Your task to perform on an android device: Set the phone to "Do not disturb". Image 0: 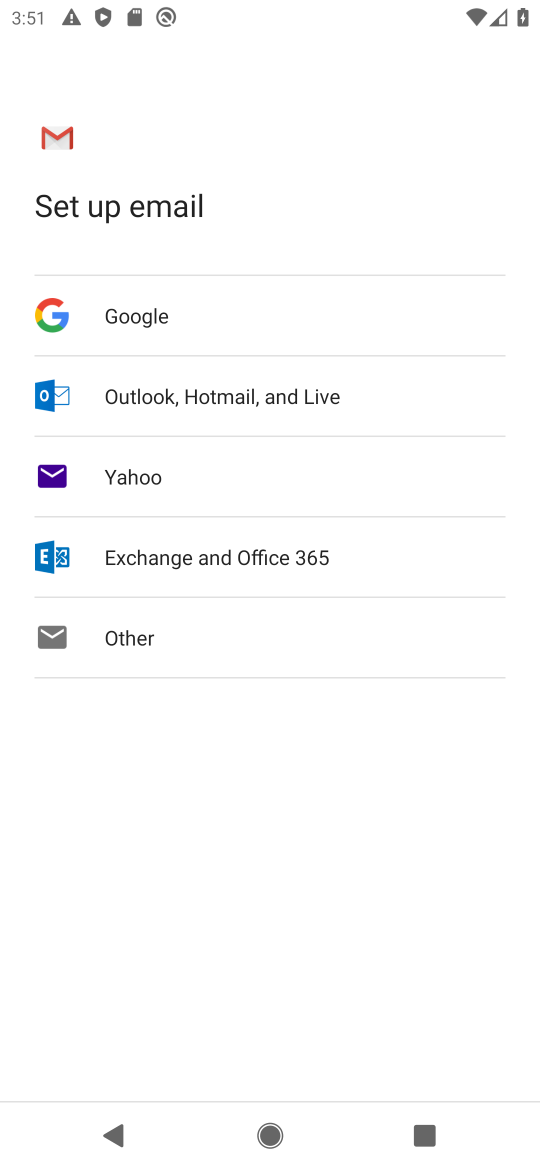
Step 0: press back button
Your task to perform on an android device: Set the phone to "Do not disturb". Image 1: 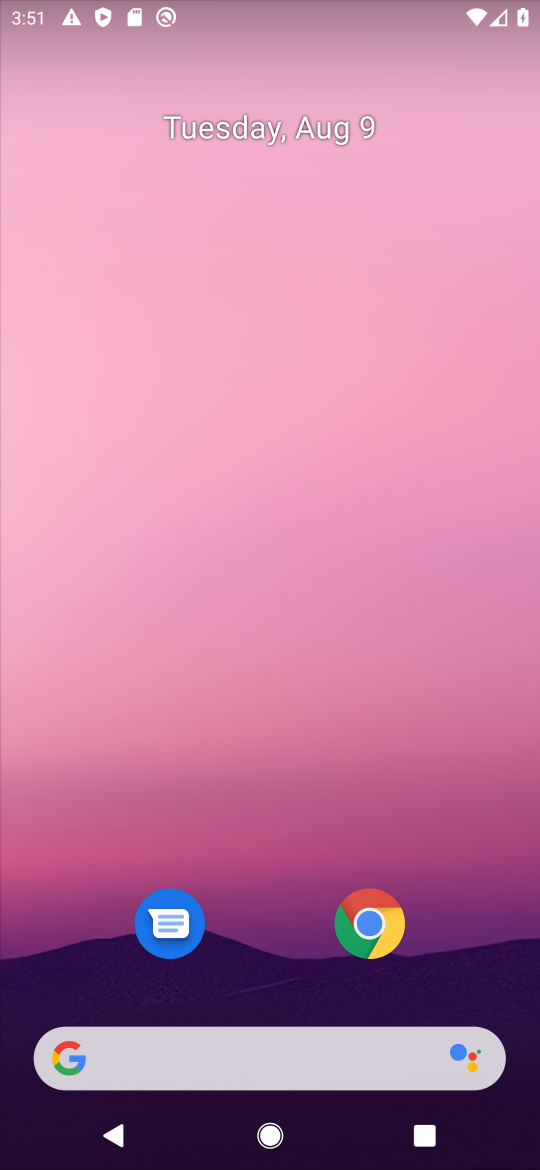
Step 1: drag from (440, 120) to (289, 791)
Your task to perform on an android device: Set the phone to "Do not disturb". Image 2: 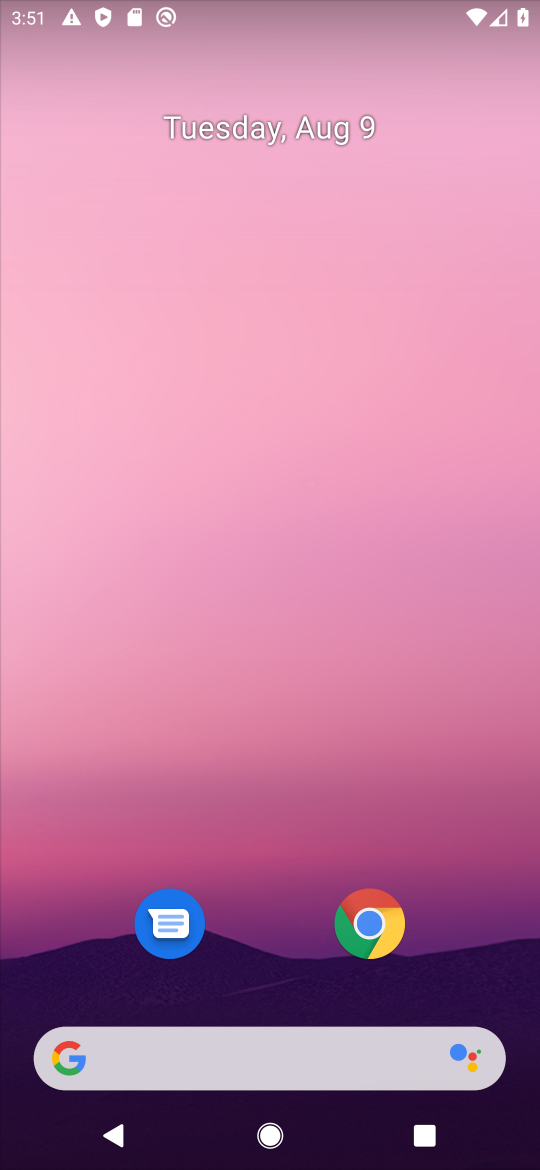
Step 2: drag from (196, 113) to (290, 766)
Your task to perform on an android device: Set the phone to "Do not disturb". Image 3: 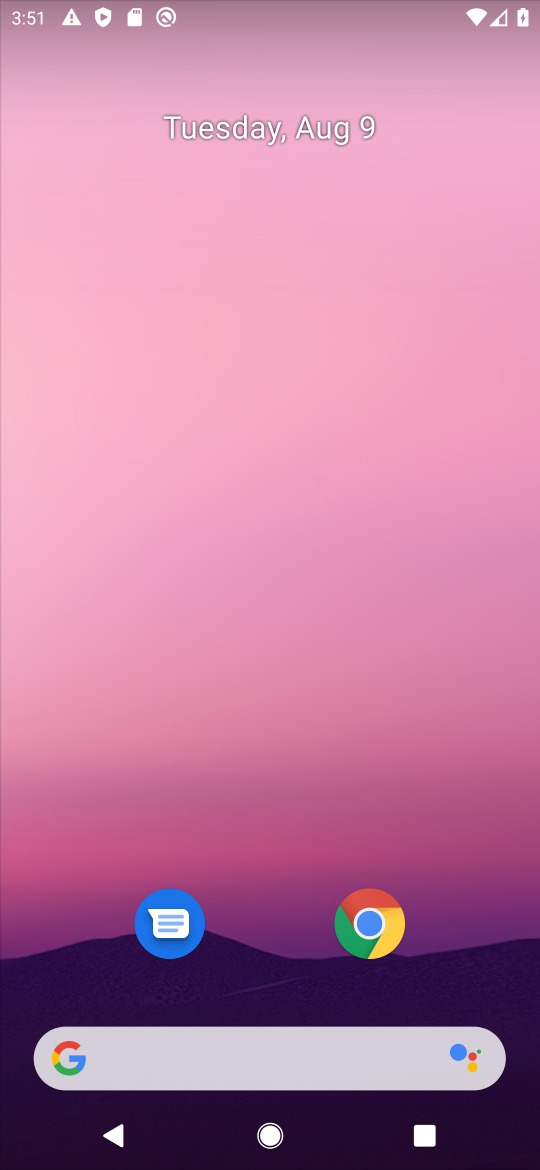
Step 3: drag from (275, 99) to (278, 784)
Your task to perform on an android device: Set the phone to "Do not disturb". Image 4: 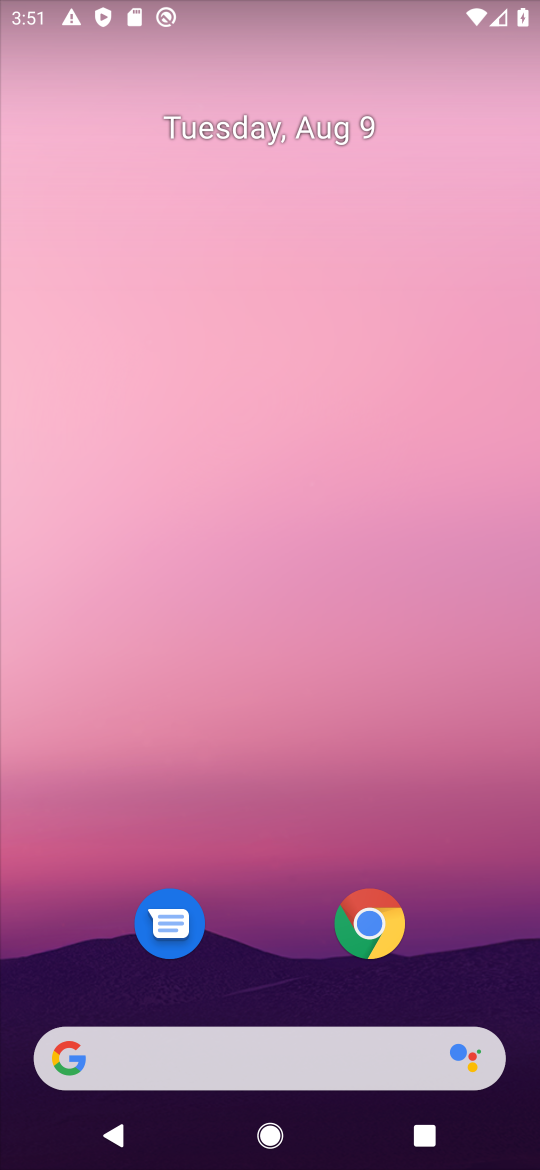
Step 4: drag from (188, 20) to (233, 635)
Your task to perform on an android device: Set the phone to "Do not disturb". Image 5: 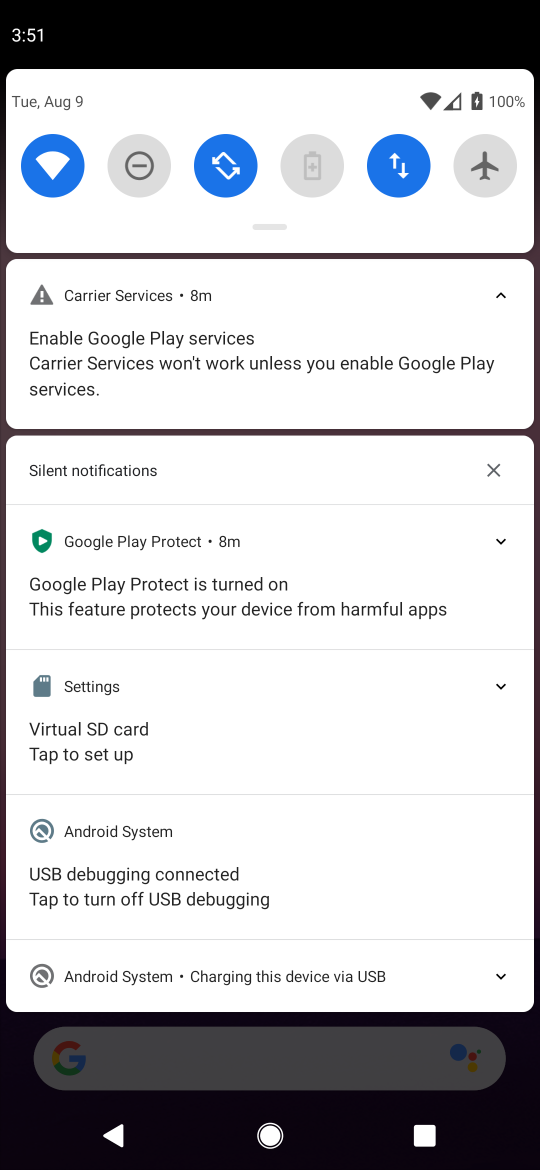
Step 5: click (124, 164)
Your task to perform on an android device: Set the phone to "Do not disturb". Image 6: 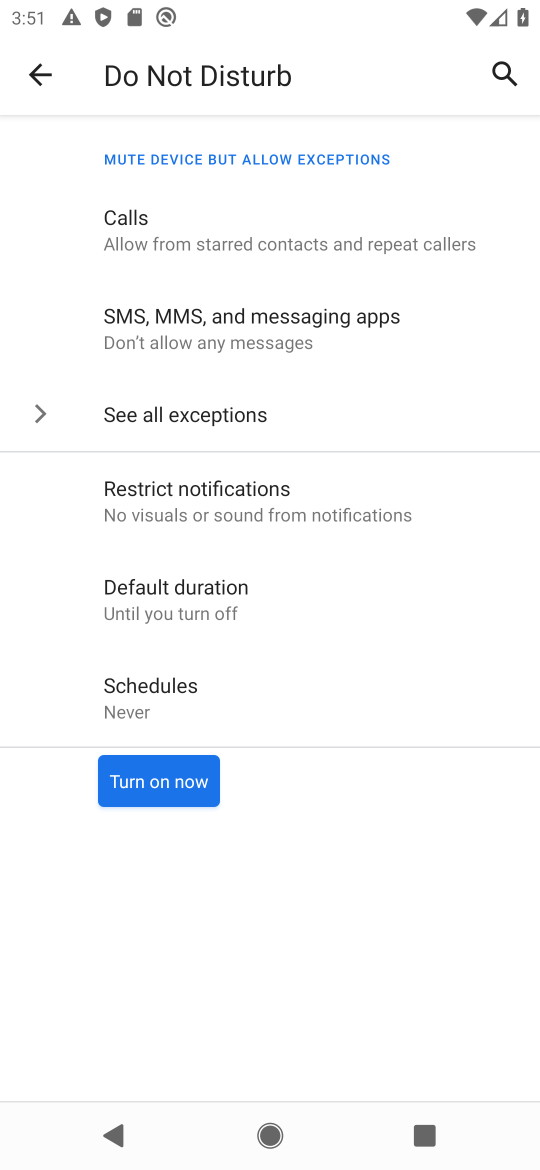
Step 6: click (143, 770)
Your task to perform on an android device: Set the phone to "Do not disturb". Image 7: 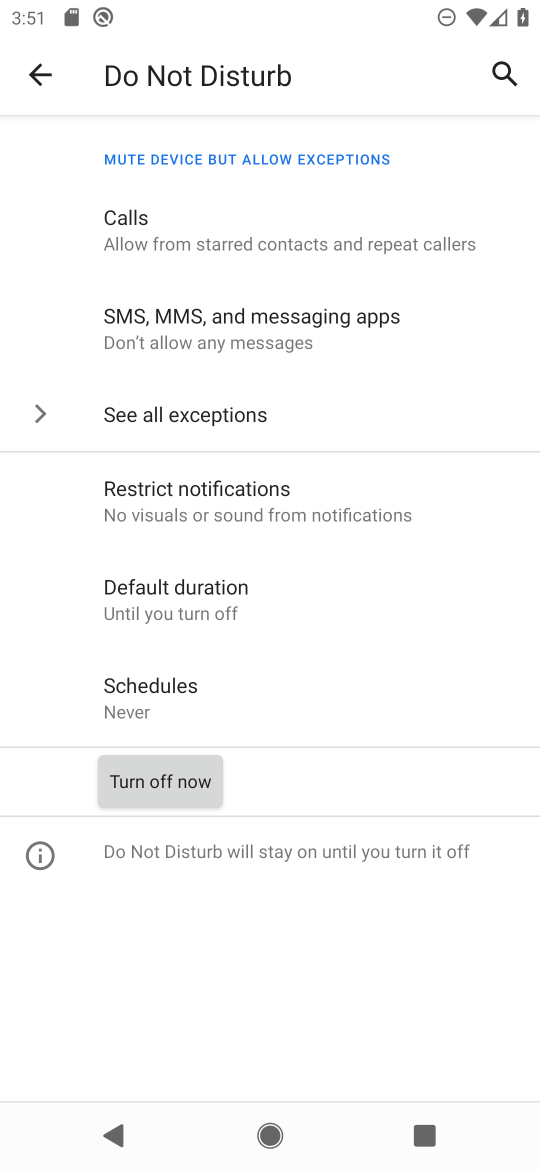
Step 7: task complete